Your task to perform on an android device: Go to network settings Image 0: 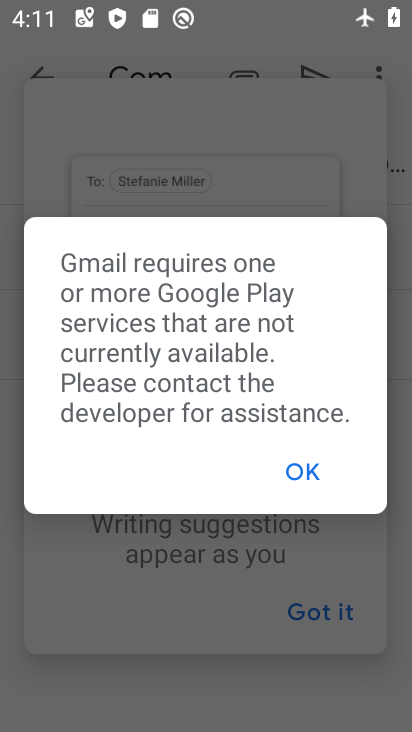
Step 0: press home button
Your task to perform on an android device: Go to network settings Image 1: 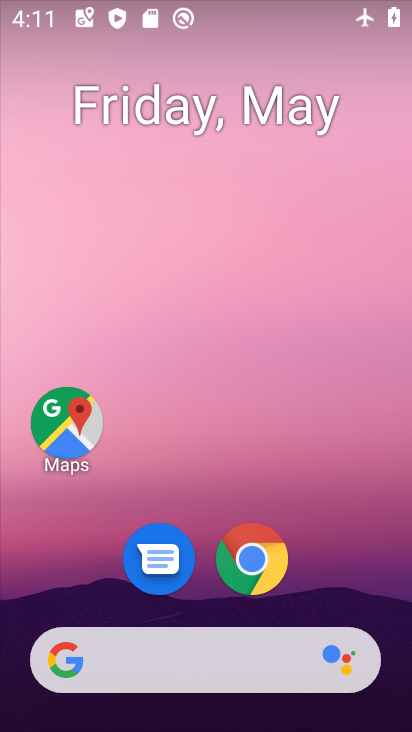
Step 1: drag from (365, 578) to (231, 56)
Your task to perform on an android device: Go to network settings Image 2: 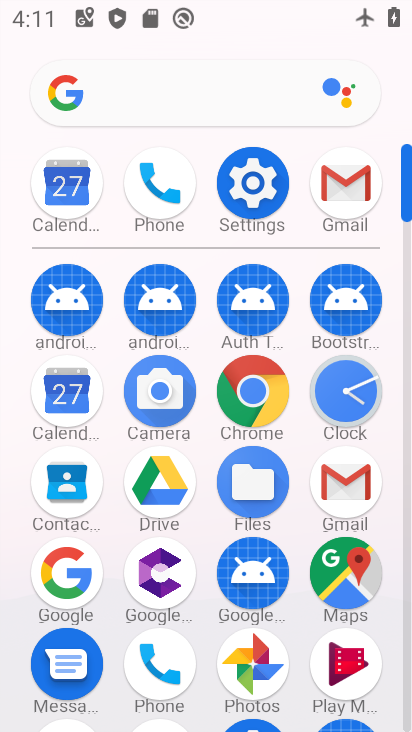
Step 2: click (237, 186)
Your task to perform on an android device: Go to network settings Image 3: 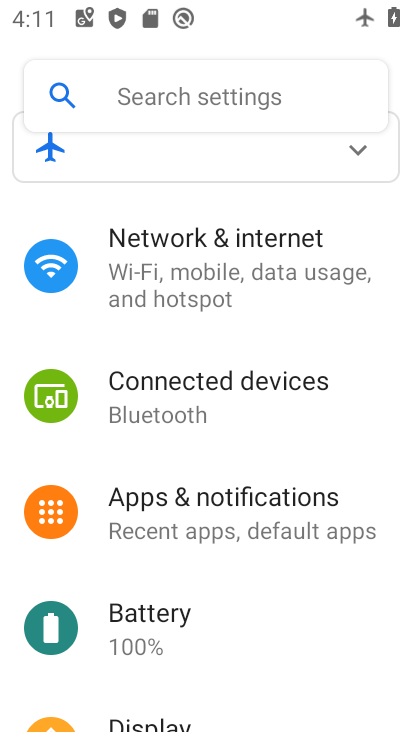
Step 3: click (230, 286)
Your task to perform on an android device: Go to network settings Image 4: 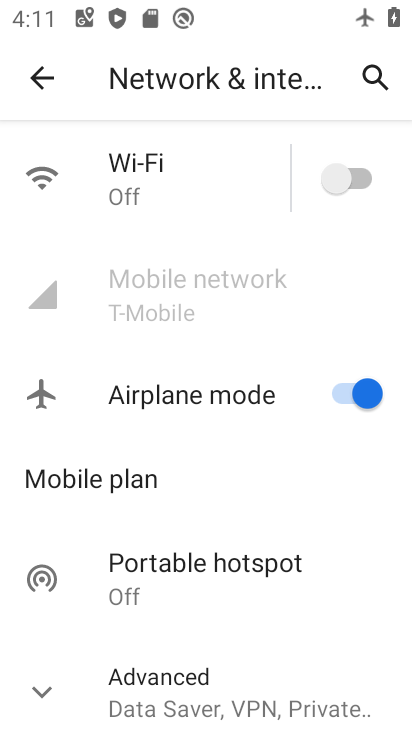
Step 4: task complete